Your task to perform on an android device: toggle pop-ups in chrome Image 0: 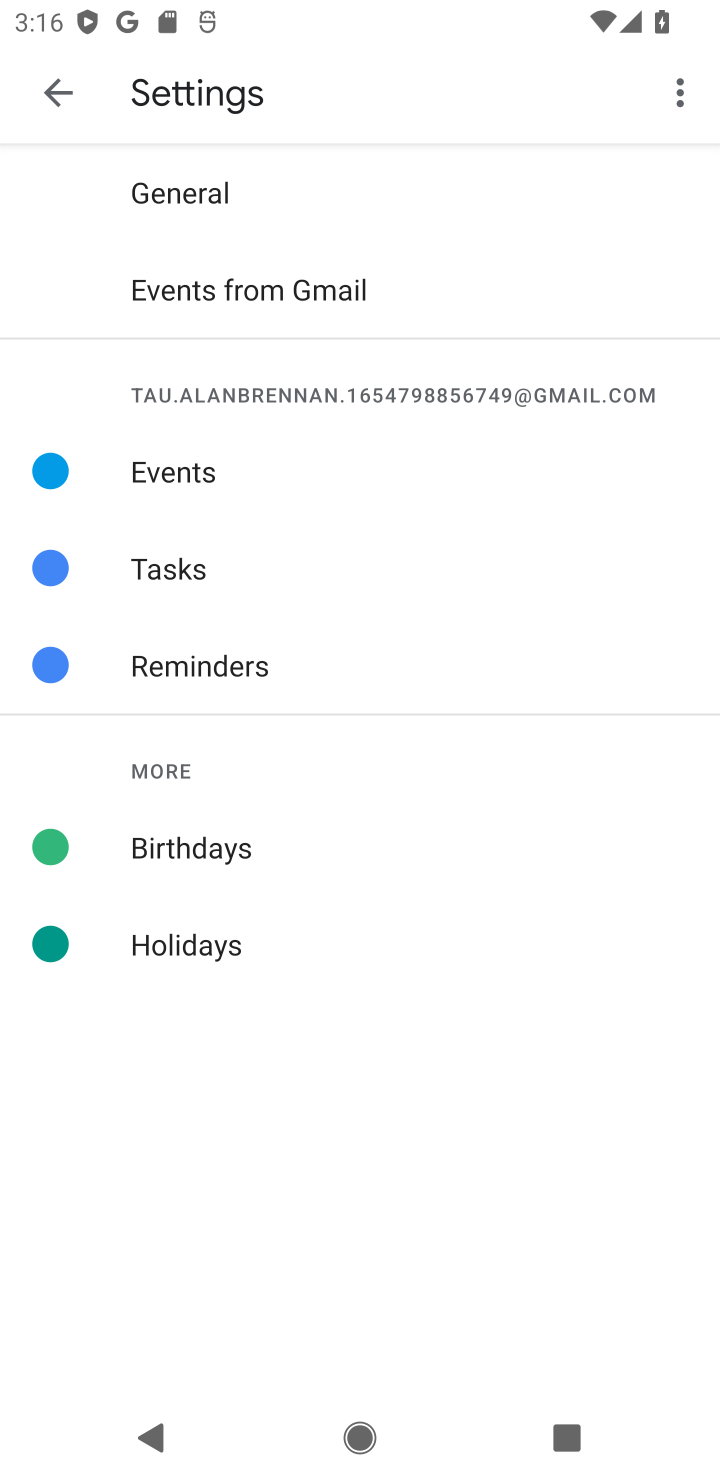
Step 0: press home button
Your task to perform on an android device: toggle pop-ups in chrome Image 1: 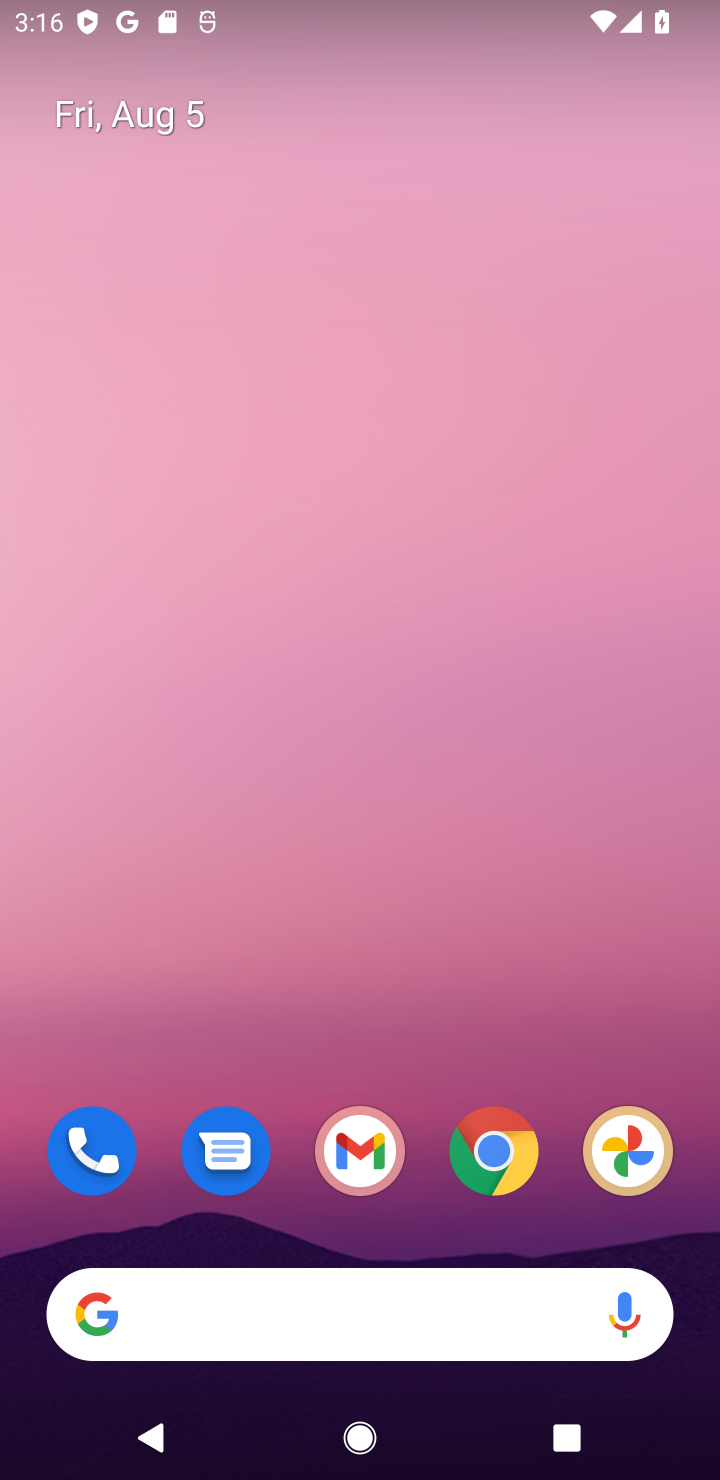
Step 1: click (494, 1176)
Your task to perform on an android device: toggle pop-ups in chrome Image 2: 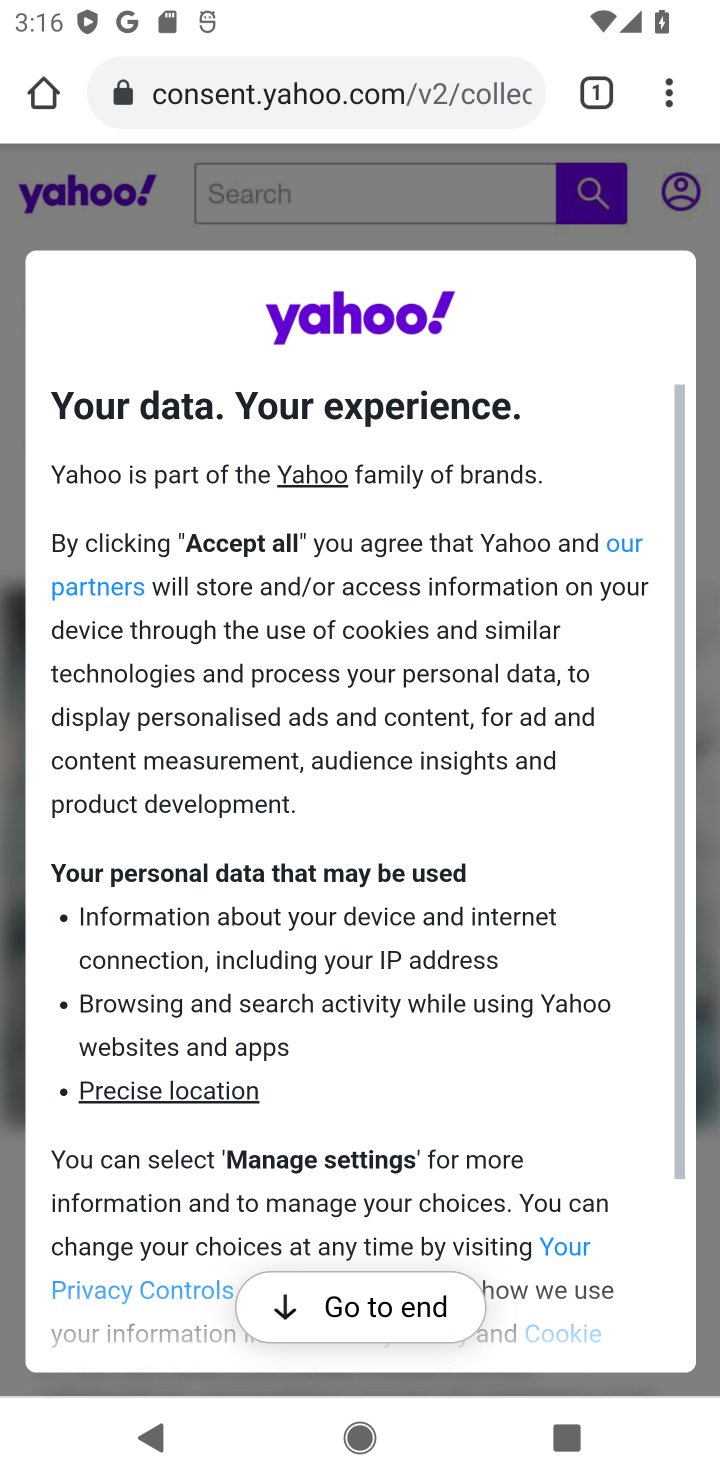
Step 2: click (651, 94)
Your task to perform on an android device: toggle pop-ups in chrome Image 3: 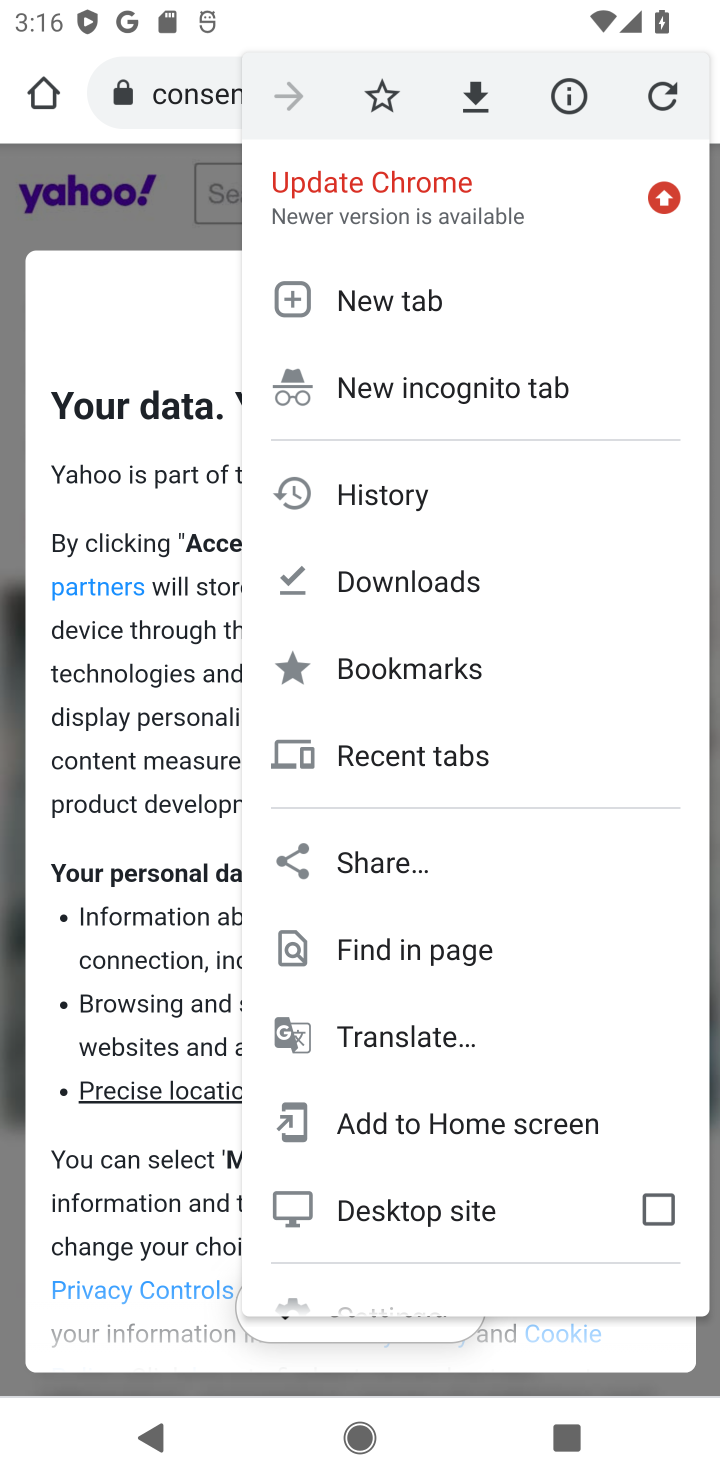
Step 3: drag from (397, 1121) to (278, 474)
Your task to perform on an android device: toggle pop-ups in chrome Image 4: 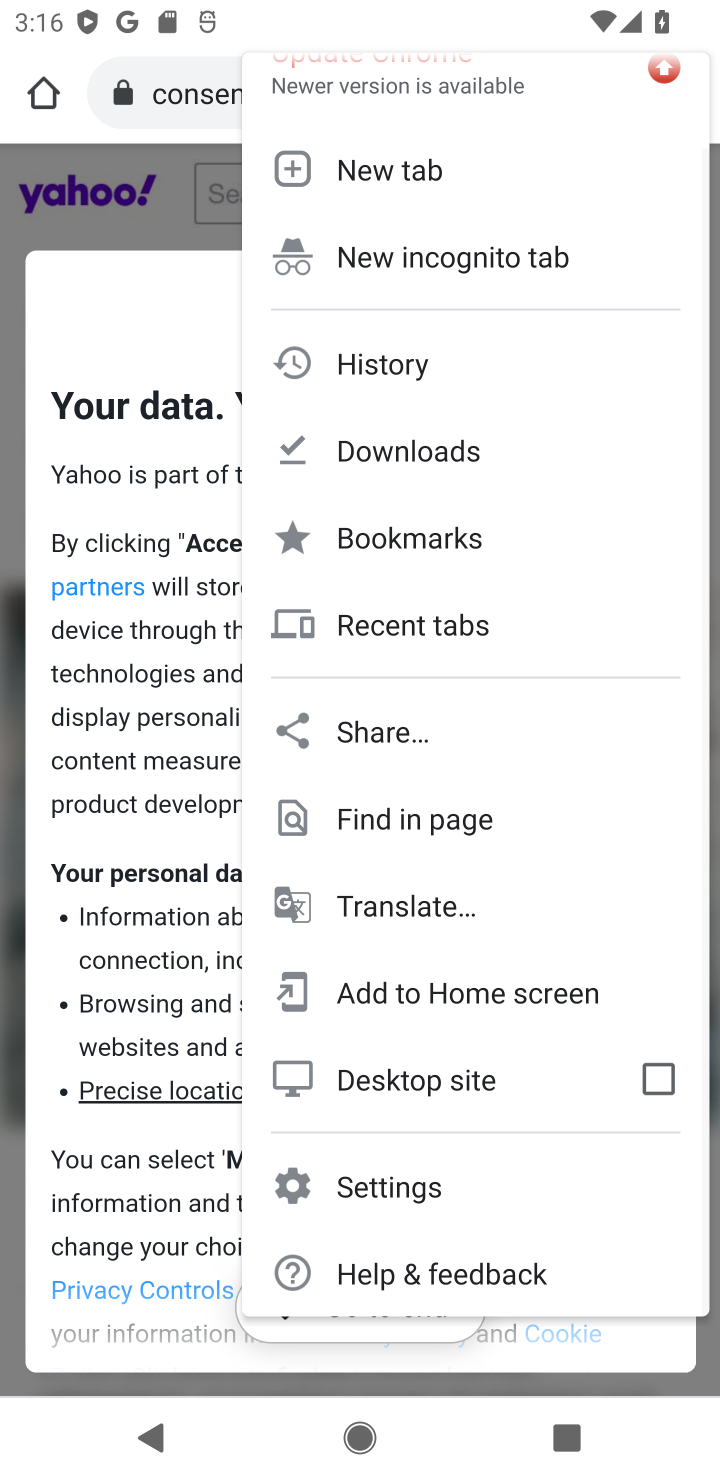
Step 4: click (370, 1180)
Your task to perform on an android device: toggle pop-ups in chrome Image 5: 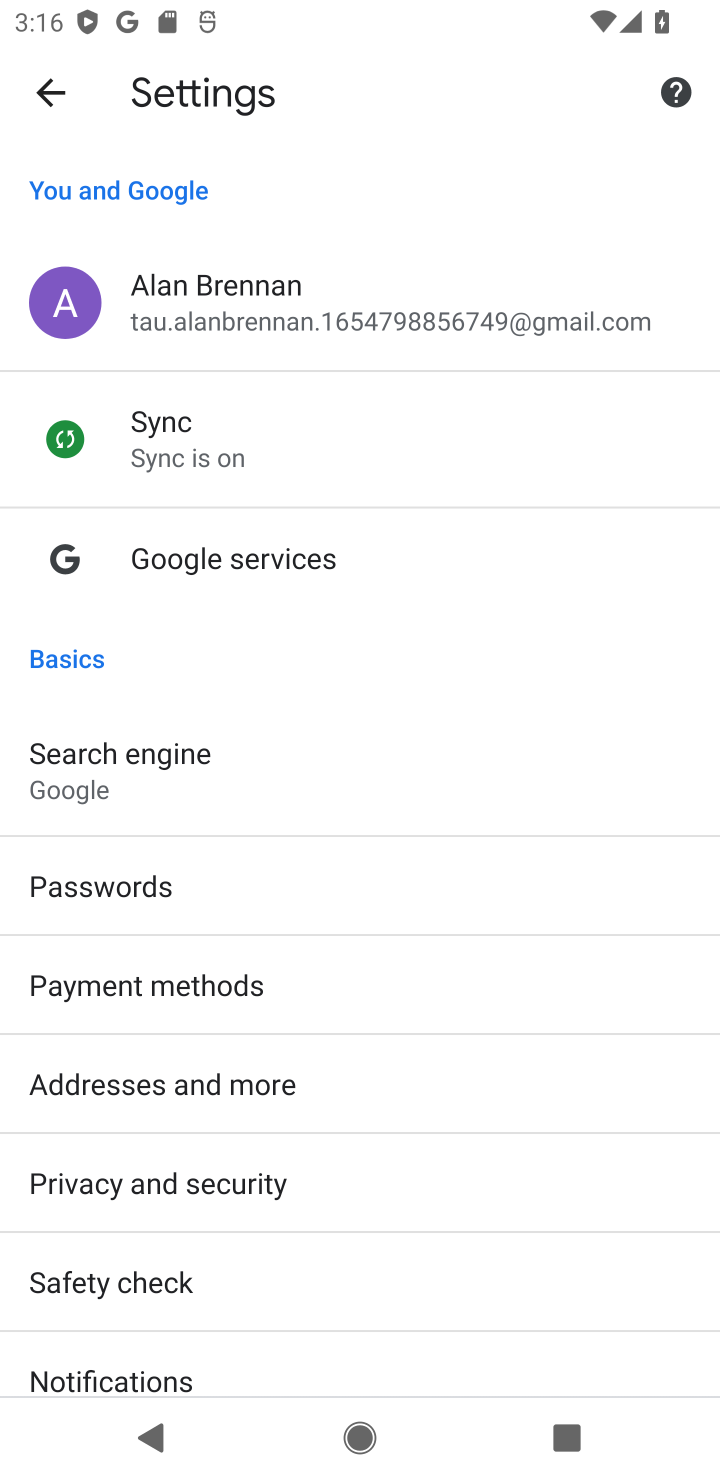
Step 5: drag from (281, 1322) to (281, 456)
Your task to perform on an android device: toggle pop-ups in chrome Image 6: 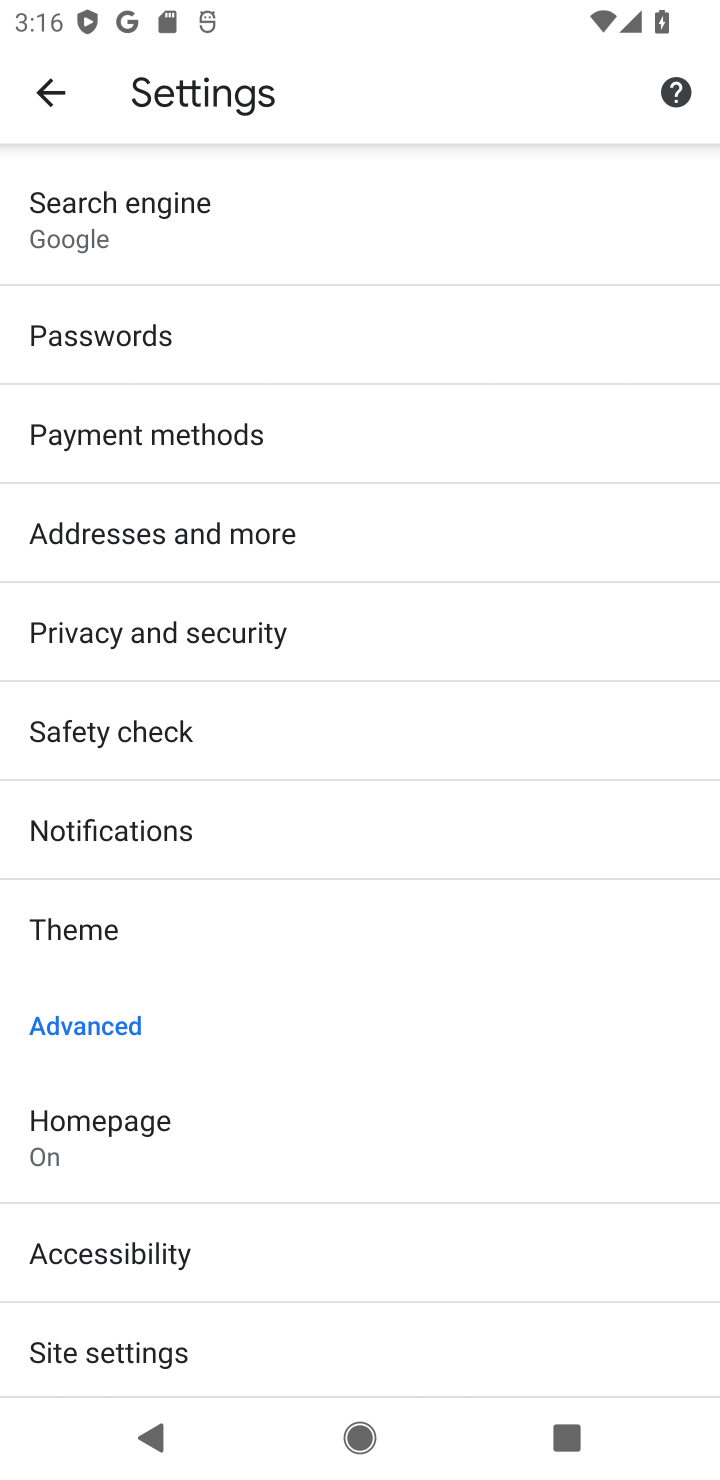
Step 6: drag from (267, 1201) to (256, 344)
Your task to perform on an android device: toggle pop-ups in chrome Image 7: 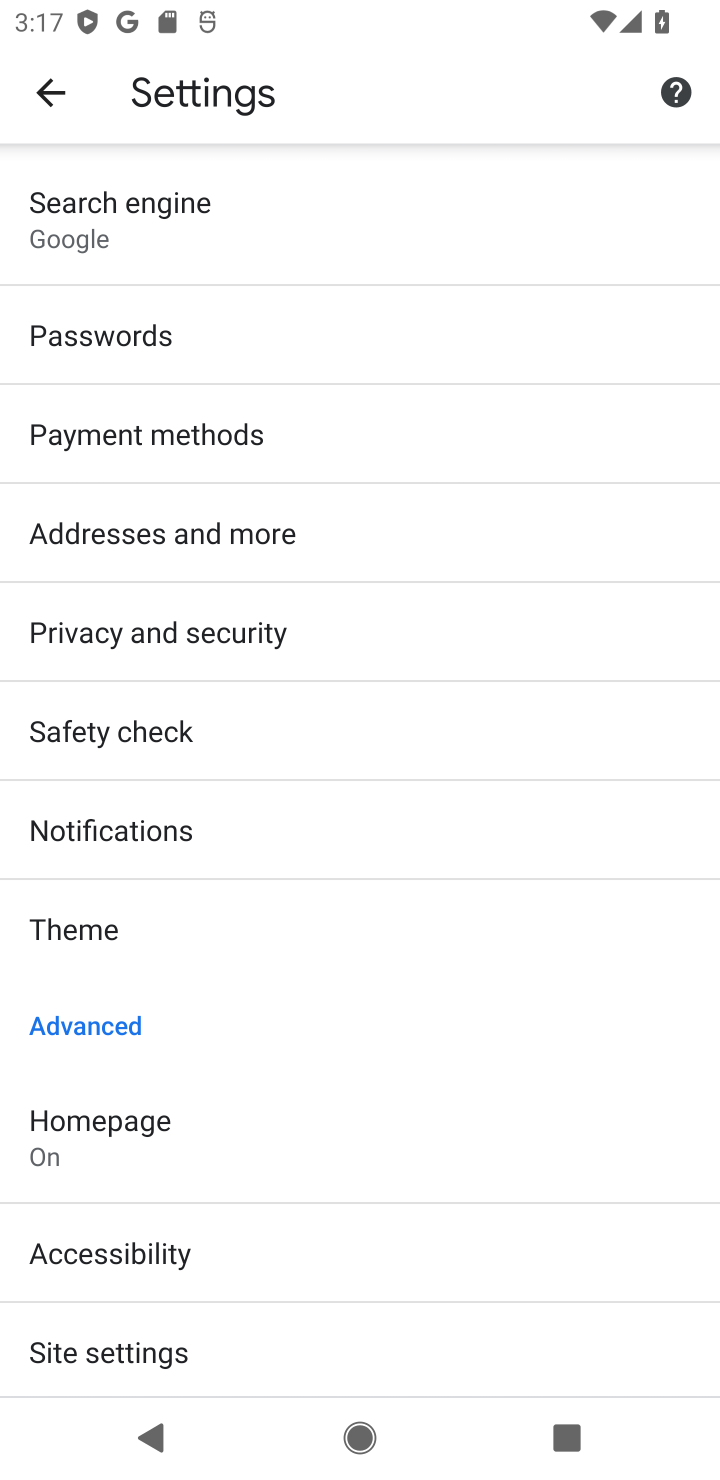
Step 7: click (191, 1363)
Your task to perform on an android device: toggle pop-ups in chrome Image 8: 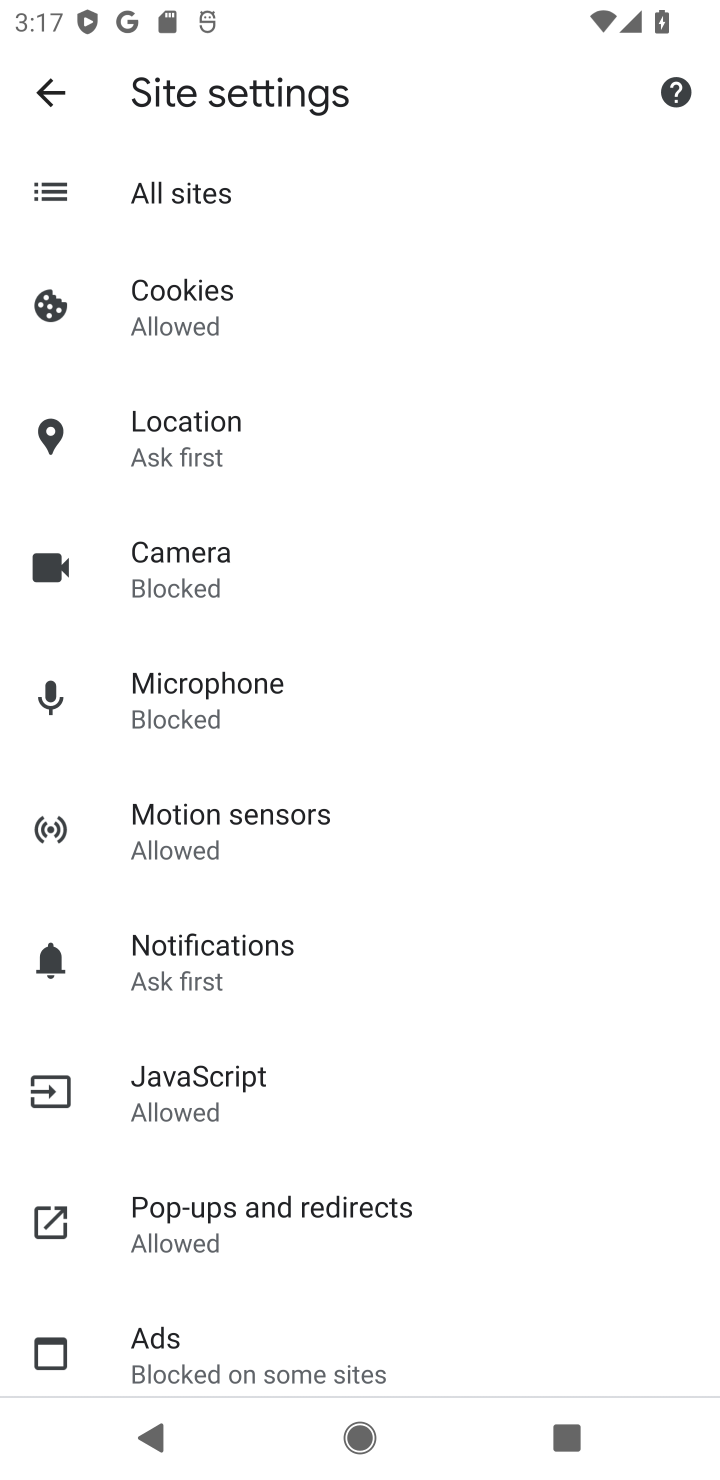
Step 8: click (242, 1207)
Your task to perform on an android device: toggle pop-ups in chrome Image 9: 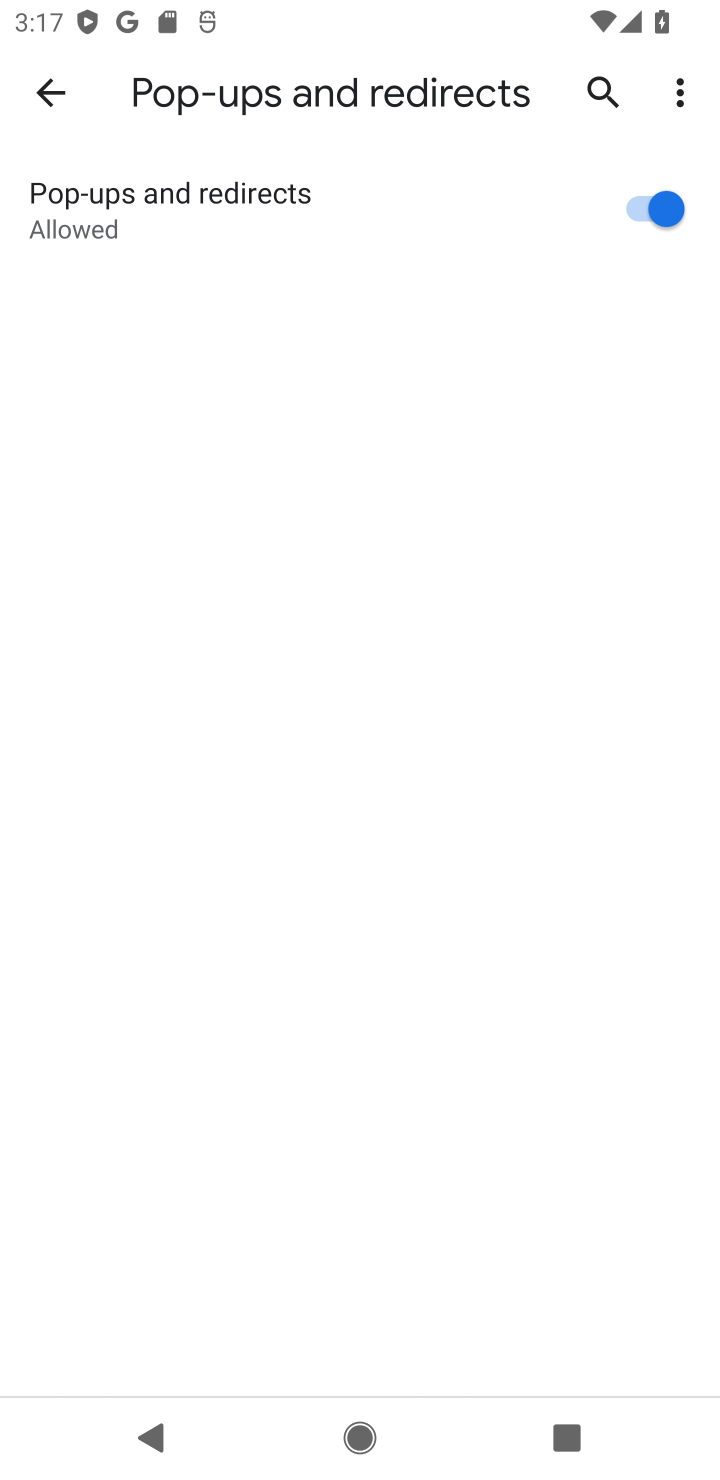
Step 9: click (682, 223)
Your task to perform on an android device: toggle pop-ups in chrome Image 10: 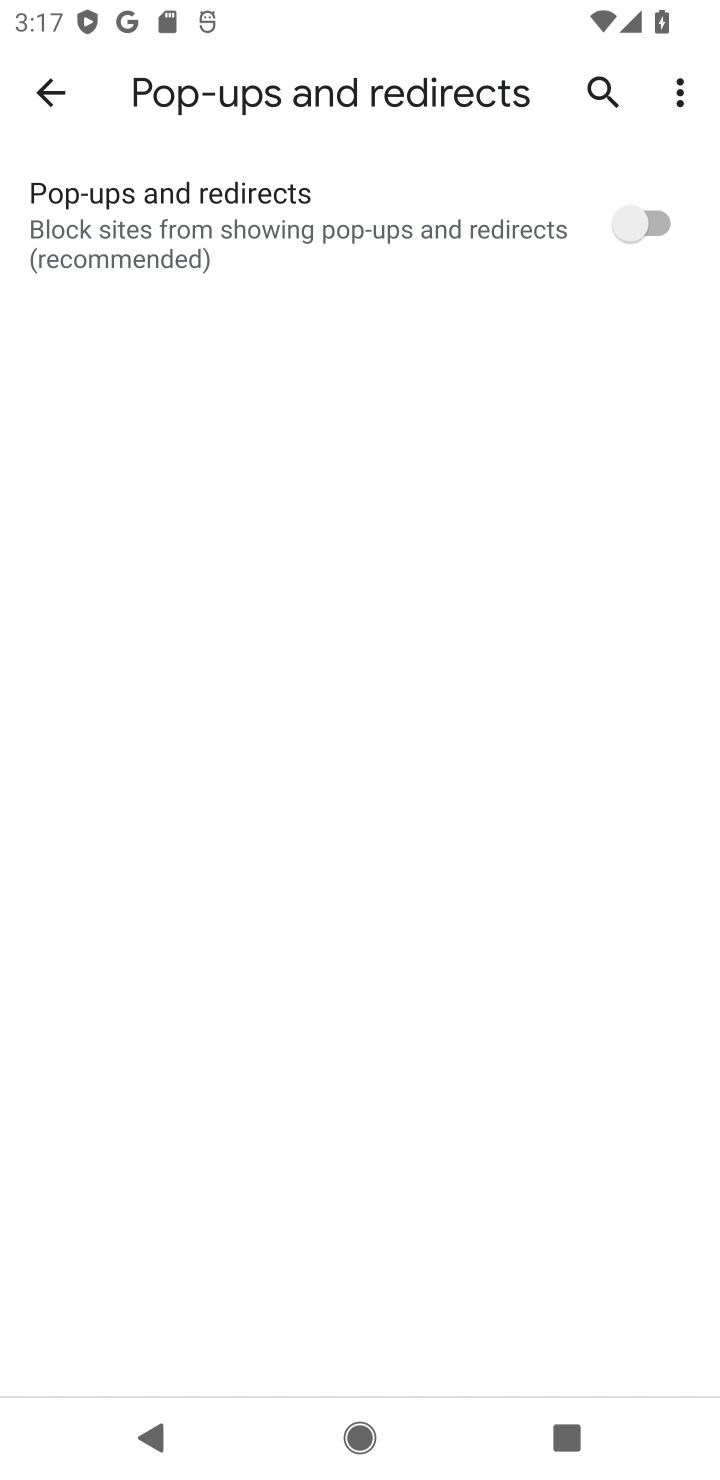
Step 10: task complete